Your task to perform on an android device: open chrome and create a bookmark for the current page Image 0: 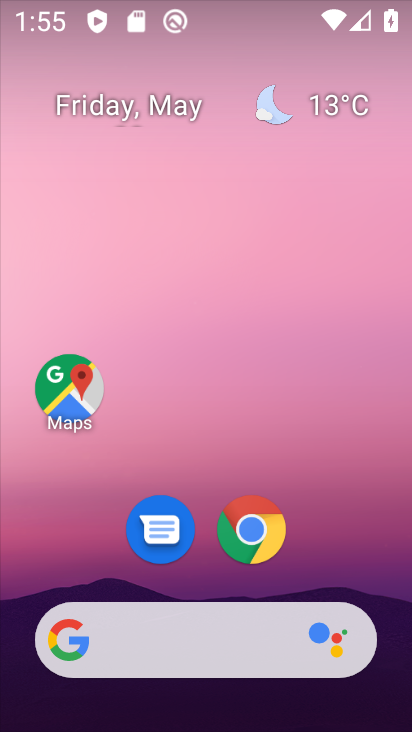
Step 0: drag from (352, 527) to (295, 181)
Your task to perform on an android device: open chrome and create a bookmark for the current page Image 1: 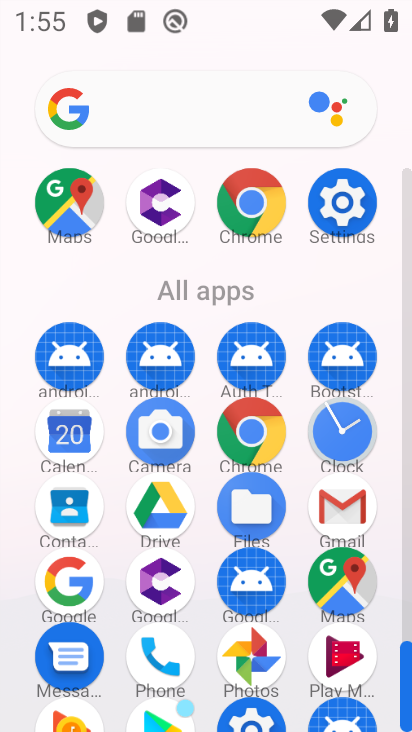
Step 1: click (264, 441)
Your task to perform on an android device: open chrome and create a bookmark for the current page Image 2: 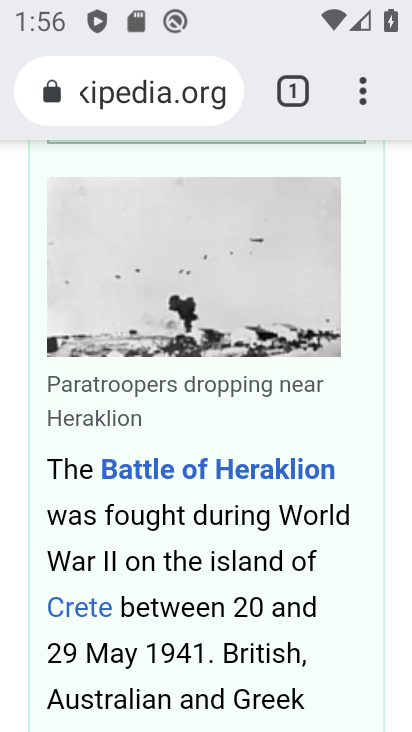
Step 2: task complete